Your task to perform on an android device: Go to Google Image 0: 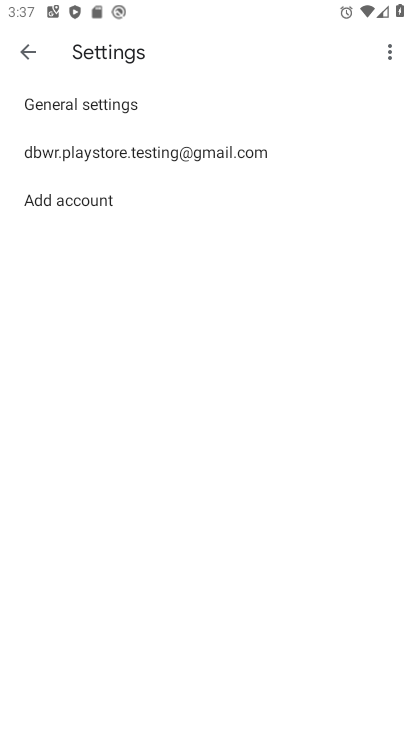
Step 0: press home button
Your task to perform on an android device: Go to Google Image 1: 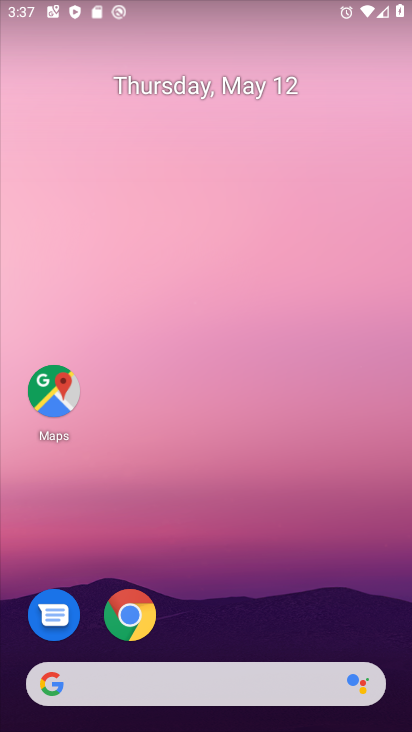
Step 1: drag from (83, 486) to (219, 171)
Your task to perform on an android device: Go to Google Image 2: 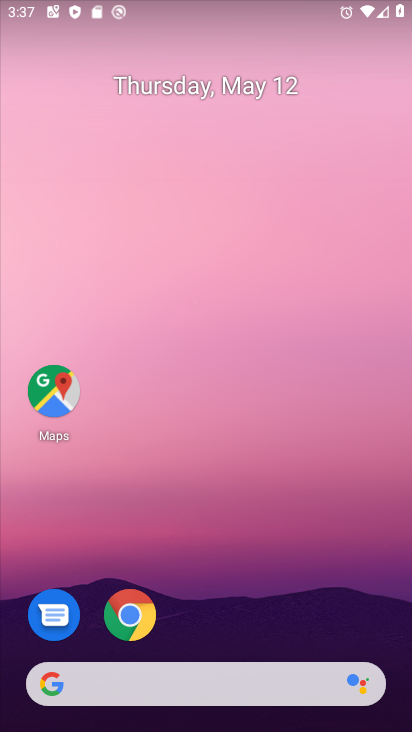
Step 2: drag from (14, 571) to (280, 158)
Your task to perform on an android device: Go to Google Image 3: 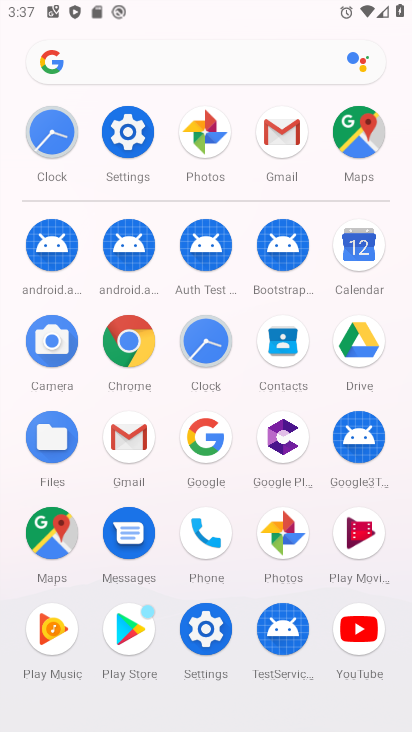
Step 3: click (209, 431)
Your task to perform on an android device: Go to Google Image 4: 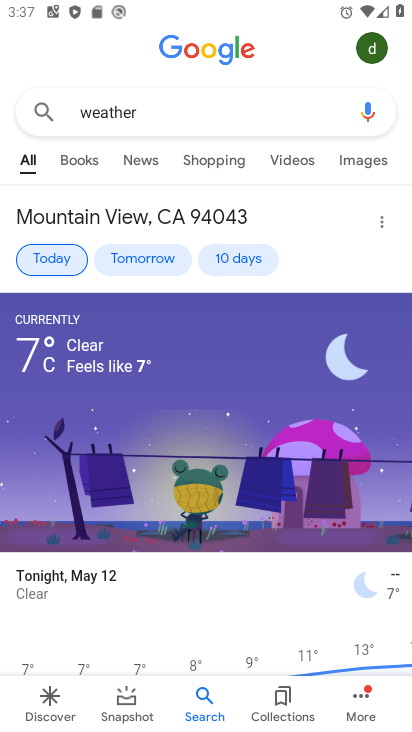
Step 4: task complete